Your task to perform on an android device: see tabs open on other devices in the chrome app Image 0: 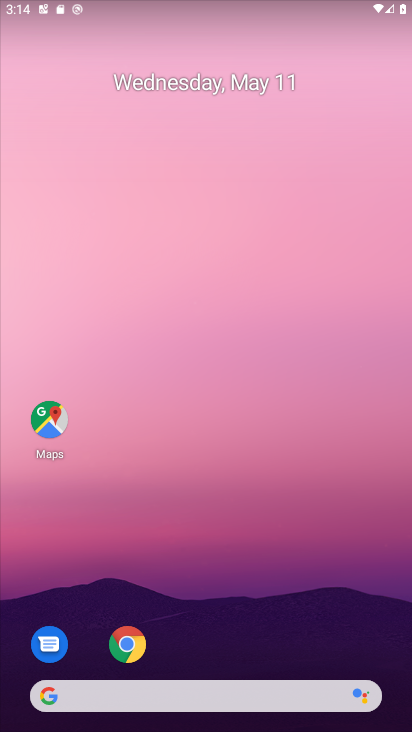
Step 0: click (130, 642)
Your task to perform on an android device: see tabs open on other devices in the chrome app Image 1: 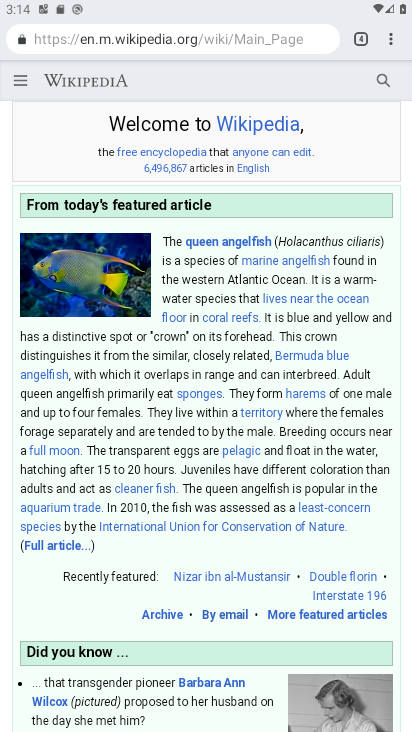
Step 1: click (360, 39)
Your task to perform on an android device: see tabs open on other devices in the chrome app Image 2: 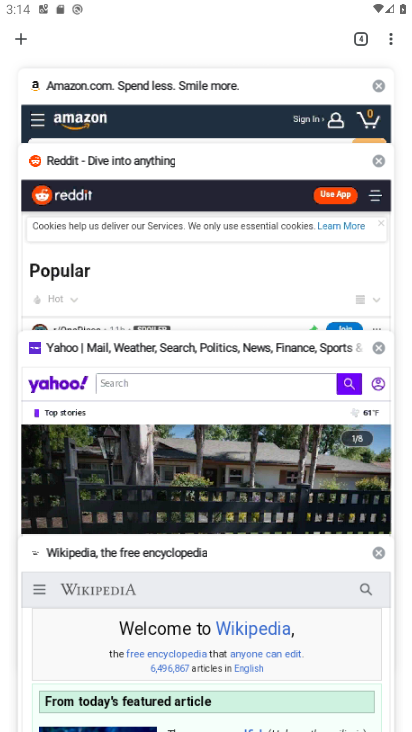
Step 2: task complete